Your task to perform on an android device: open device folders in google photos Image 0: 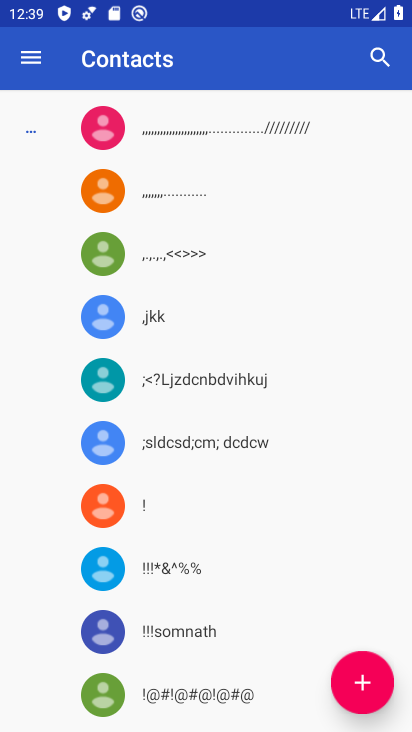
Step 0: press home button
Your task to perform on an android device: open device folders in google photos Image 1: 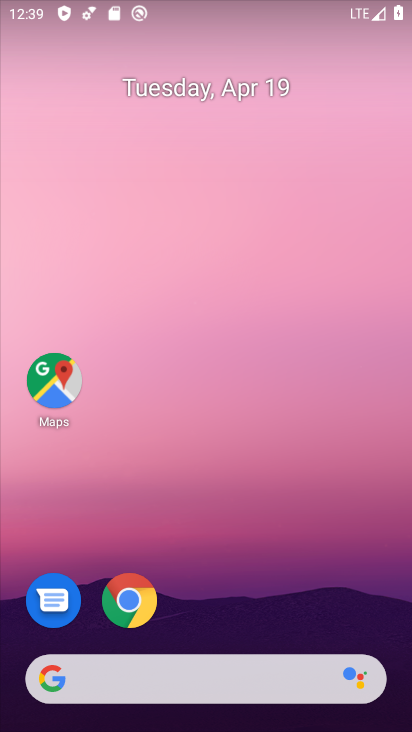
Step 1: drag from (262, 603) to (275, 178)
Your task to perform on an android device: open device folders in google photos Image 2: 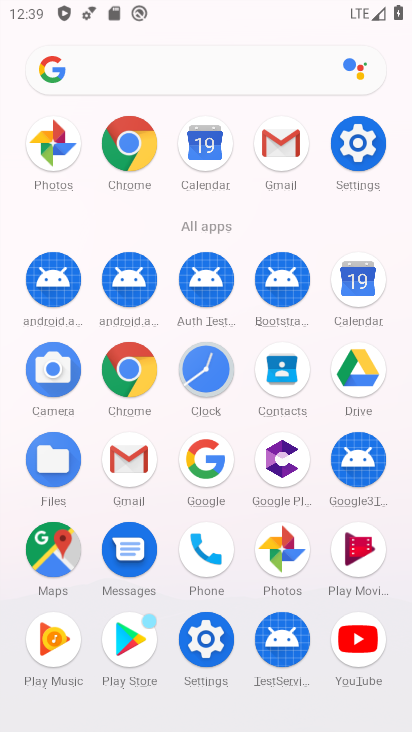
Step 2: click (57, 145)
Your task to perform on an android device: open device folders in google photos Image 3: 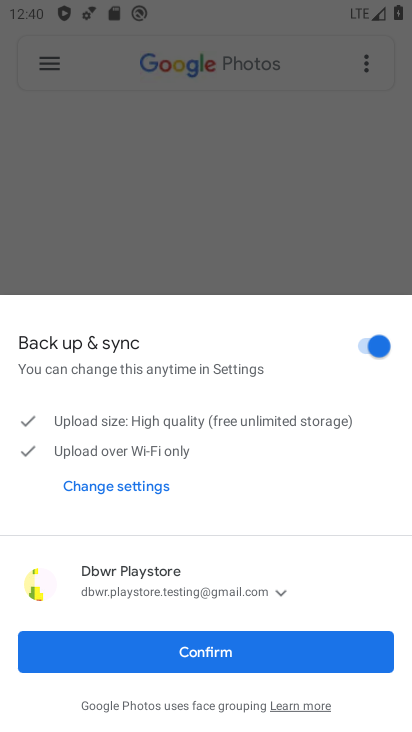
Step 3: click (222, 650)
Your task to perform on an android device: open device folders in google photos Image 4: 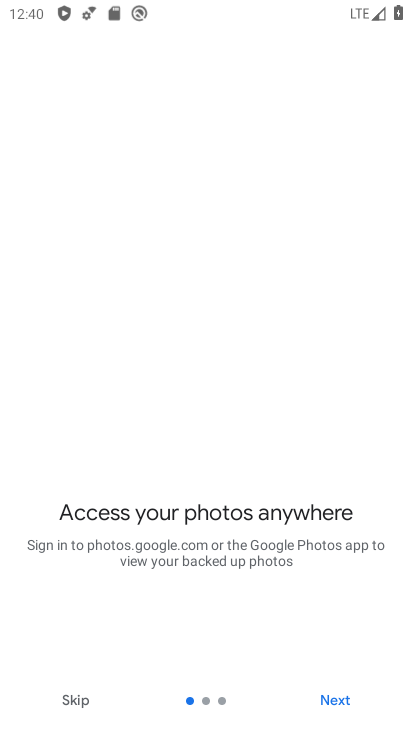
Step 4: click (335, 693)
Your task to perform on an android device: open device folders in google photos Image 5: 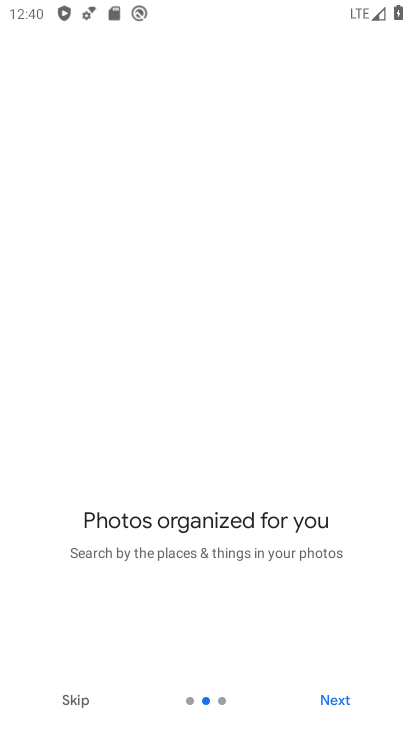
Step 5: click (335, 693)
Your task to perform on an android device: open device folders in google photos Image 6: 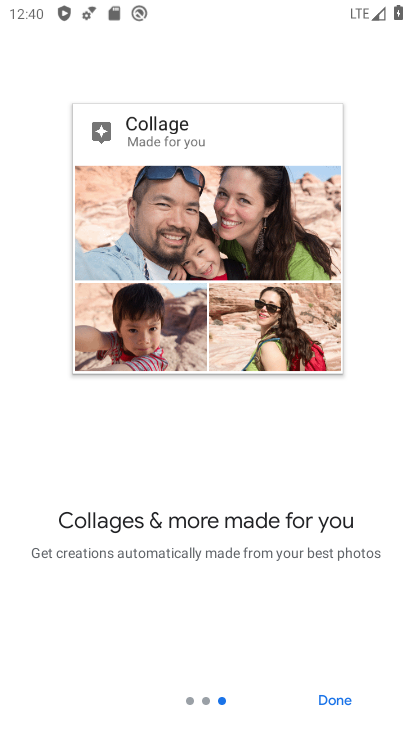
Step 6: click (332, 699)
Your task to perform on an android device: open device folders in google photos Image 7: 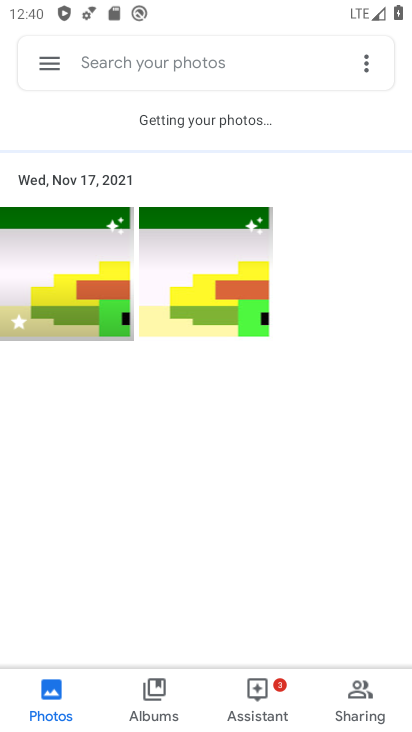
Step 7: click (46, 76)
Your task to perform on an android device: open device folders in google photos Image 8: 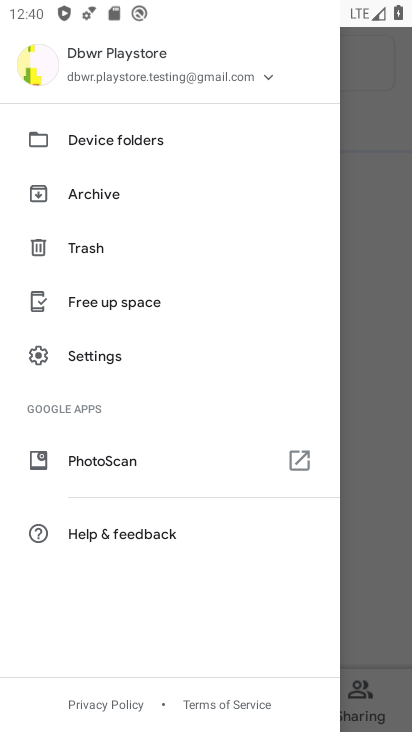
Step 8: click (105, 147)
Your task to perform on an android device: open device folders in google photos Image 9: 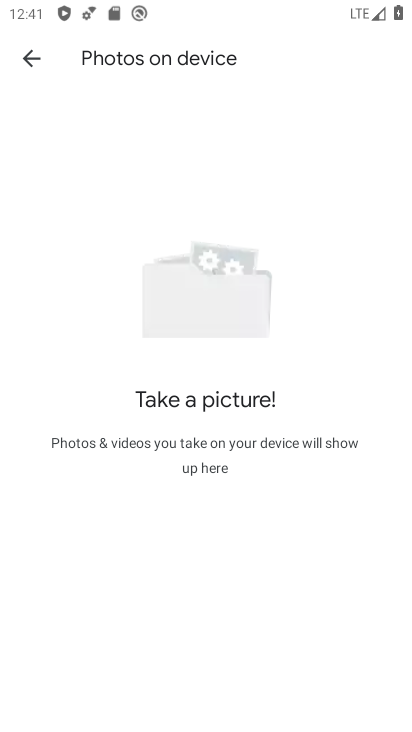
Step 9: task complete